Your task to perform on an android device: Open Google Chrome and open the bookmarks view Image 0: 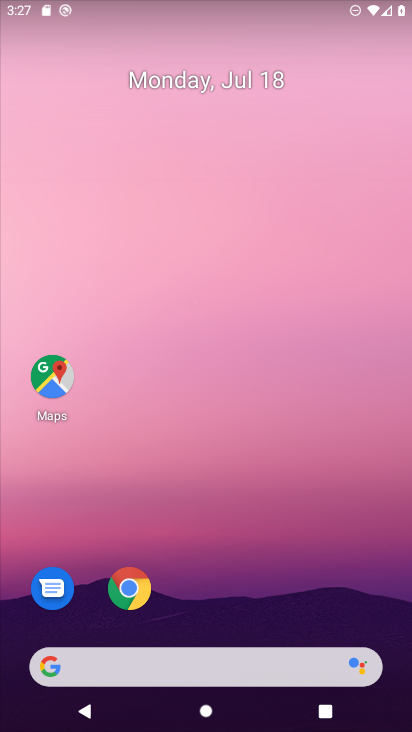
Step 0: press home button
Your task to perform on an android device: Open Google Chrome and open the bookmarks view Image 1: 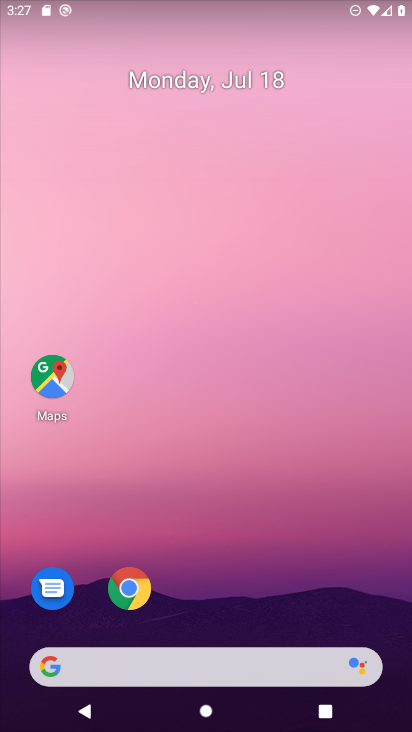
Step 1: click (129, 581)
Your task to perform on an android device: Open Google Chrome and open the bookmarks view Image 2: 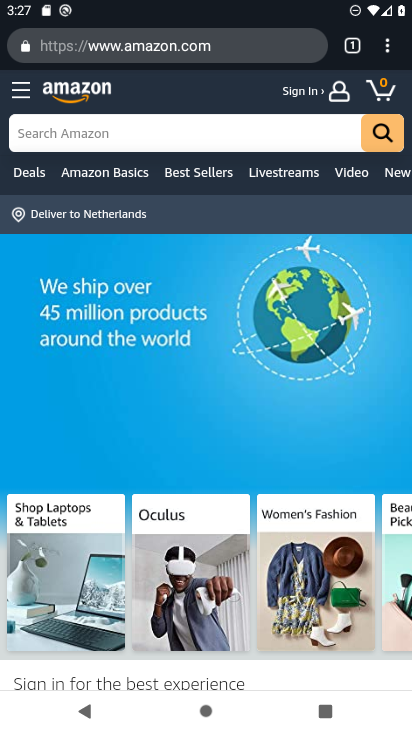
Step 2: click (391, 47)
Your task to perform on an android device: Open Google Chrome and open the bookmarks view Image 3: 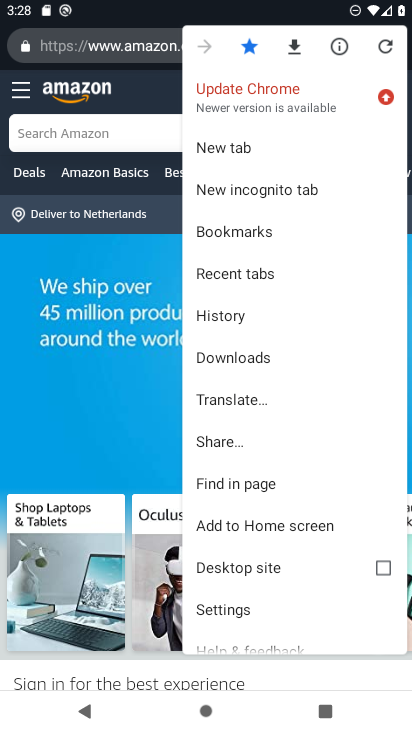
Step 3: click (280, 231)
Your task to perform on an android device: Open Google Chrome and open the bookmarks view Image 4: 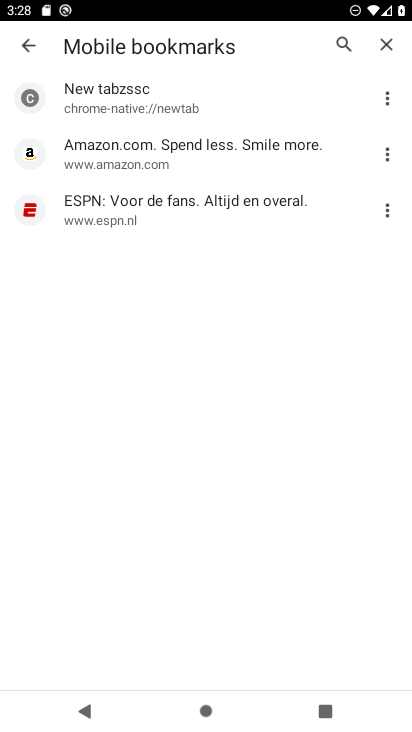
Step 4: task complete